Your task to perform on an android device: set an alarm Image 0: 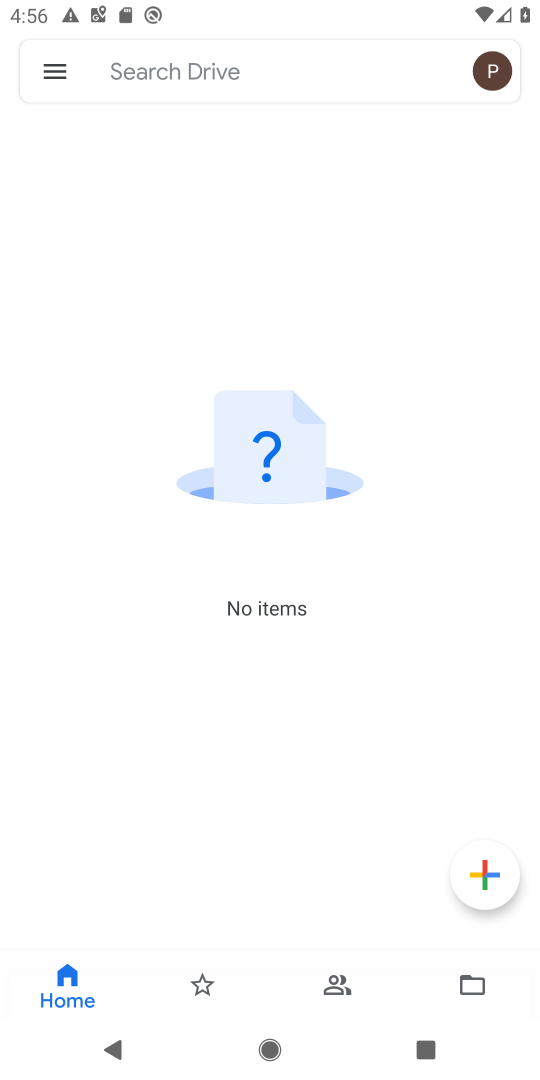
Step 0: press back button
Your task to perform on an android device: set an alarm Image 1: 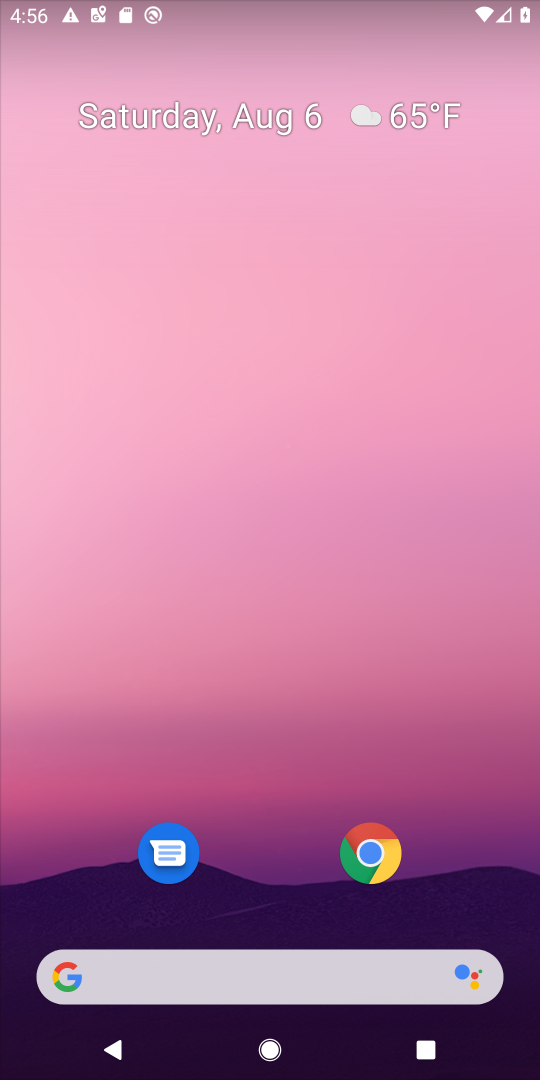
Step 1: drag from (230, 910) to (392, 5)
Your task to perform on an android device: set an alarm Image 2: 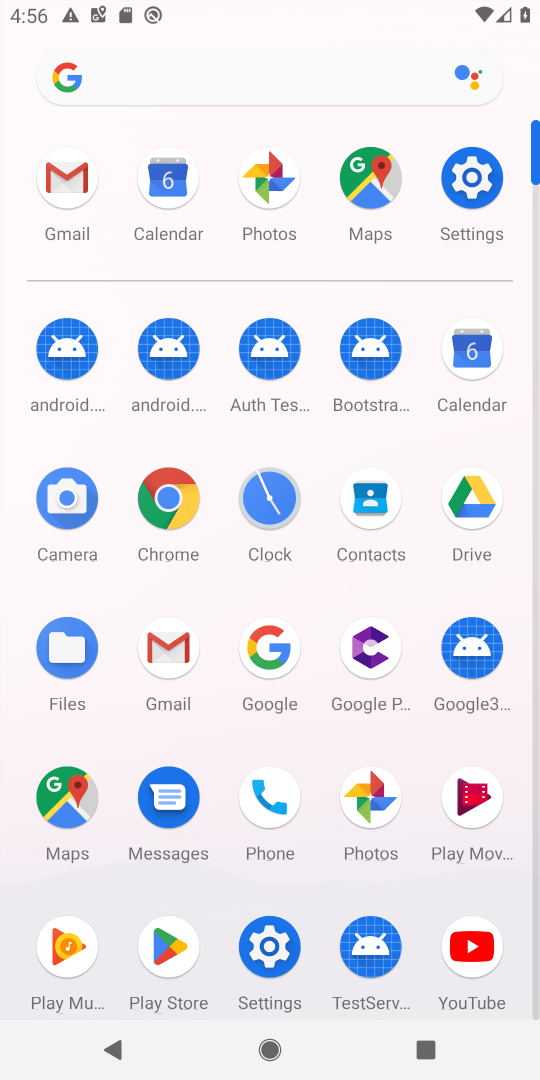
Step 2: click (280, 500)
Your task to perform on an android device: set an alarm Image 3: 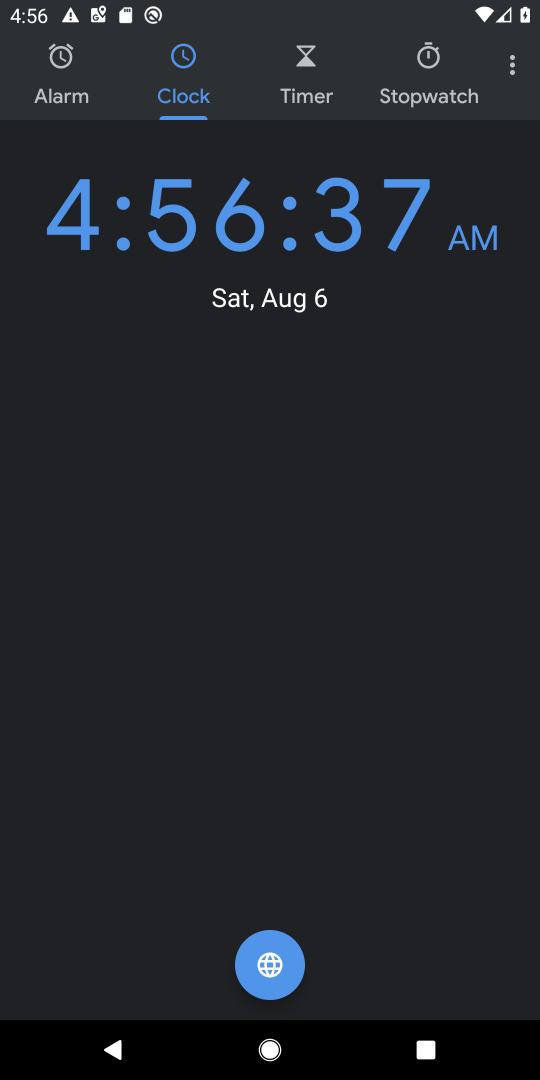
Step 3: click (86, 67)
Your task to perform on an android device: set an alarm Image 4: 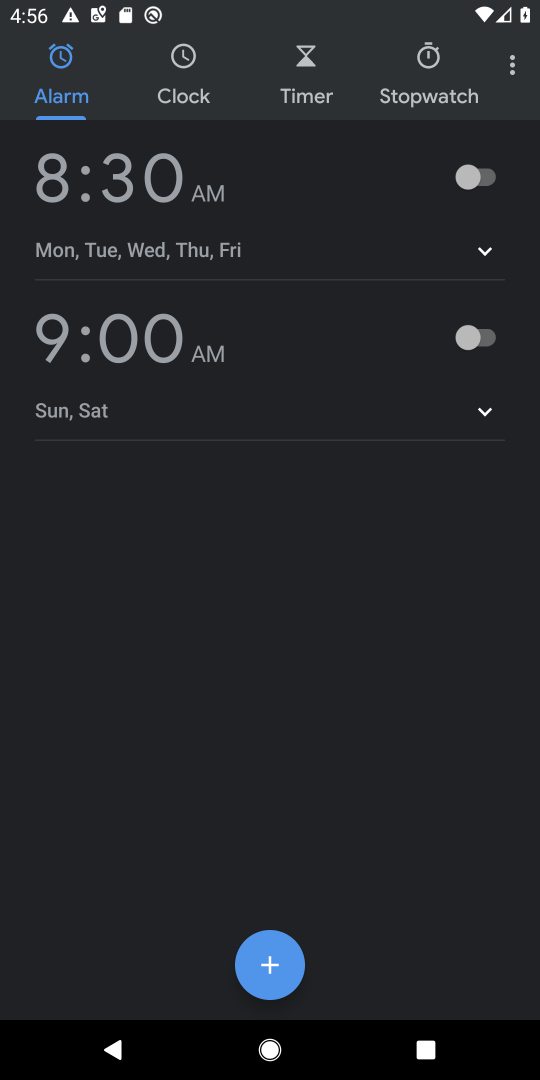
Step 4: click (469, 170)
Your task to perform on an android device: set an alarm Image 5: 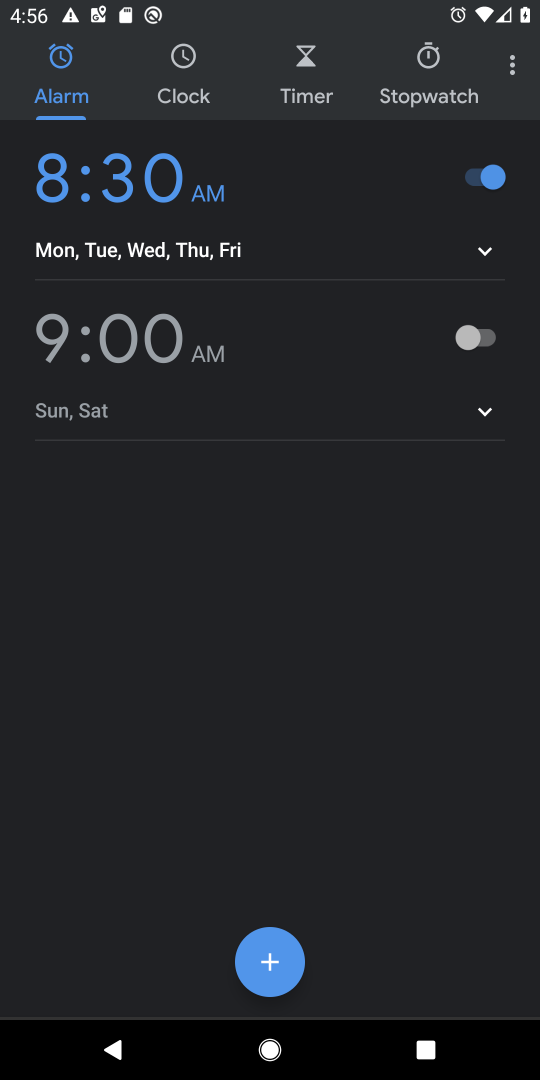
Step 5: task complete